Your task to perform on an android device: turn on improve location accuracy Image 0: 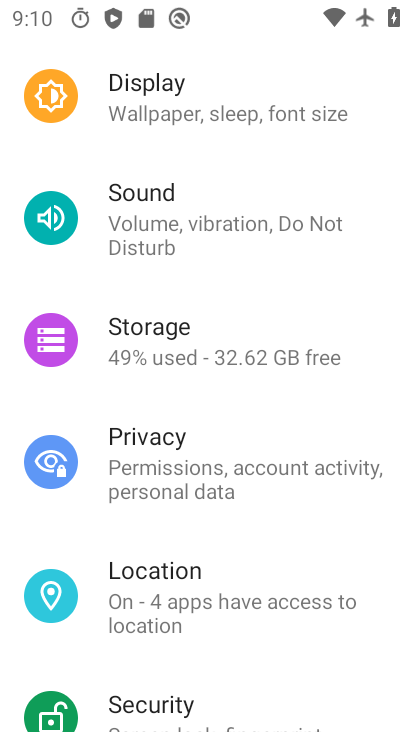
Step 0: click (199, 607)
Your task to perform on an android device: turn on improve location accuracy Image 1: 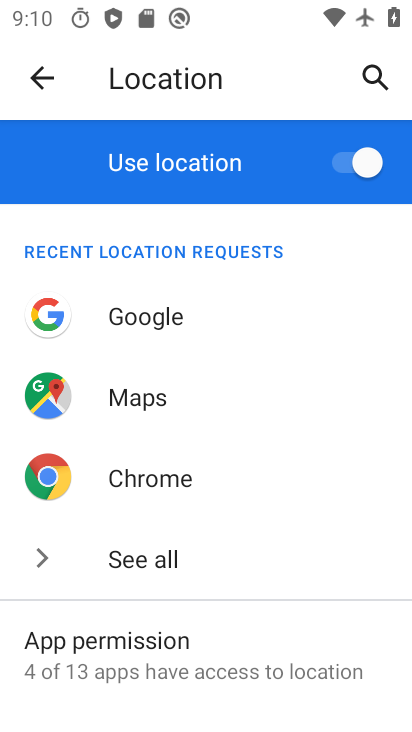
Step 1: drag from (176, 676) to (156, 459)
Your task to perform on an android device: turn on improve location accuracy Image 2: 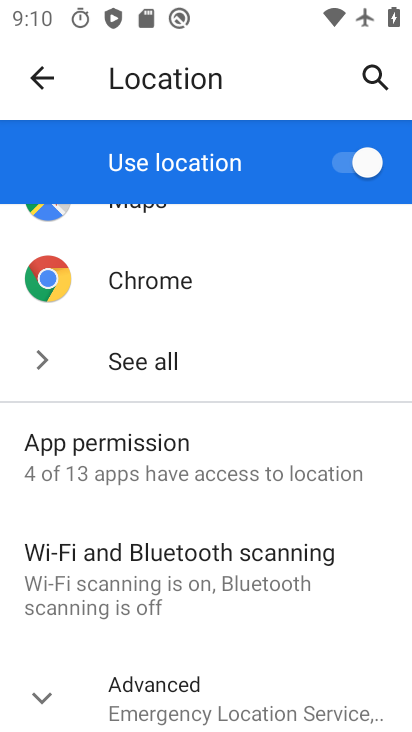
Step 2: click (193, 694)
Your task to perform on an android device: turn on improve location accuracy Image 3: 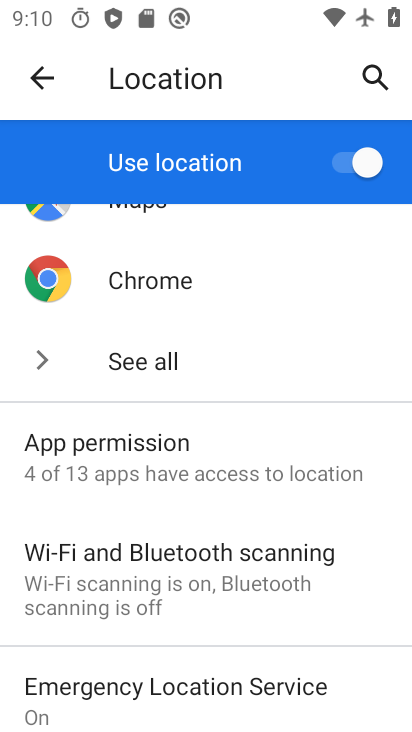
Step 3: drag from (155, 709) to (173, 355)
Your task to perform on an android device: turn on improve location accuracy Image 4: 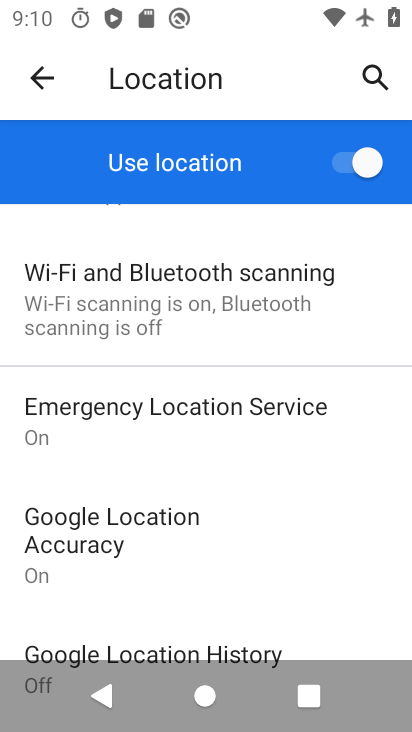
Step 4: click (162, 533)
Your task to perform on an android device: turn on improve location accuracy Image 5: 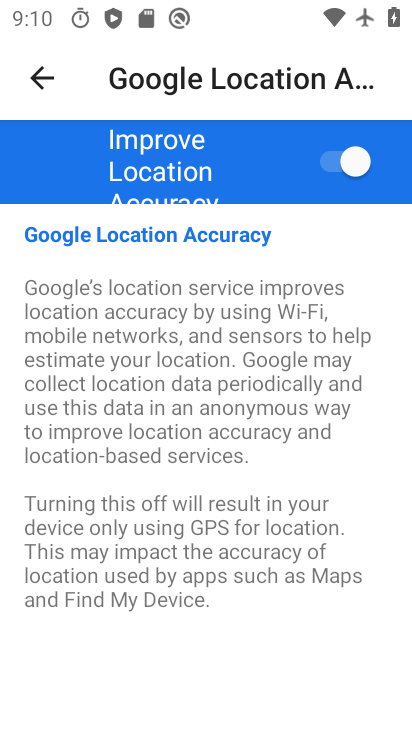
Step 5: task complete